Your task to perform on an android device: Go to Amazon Image 0: 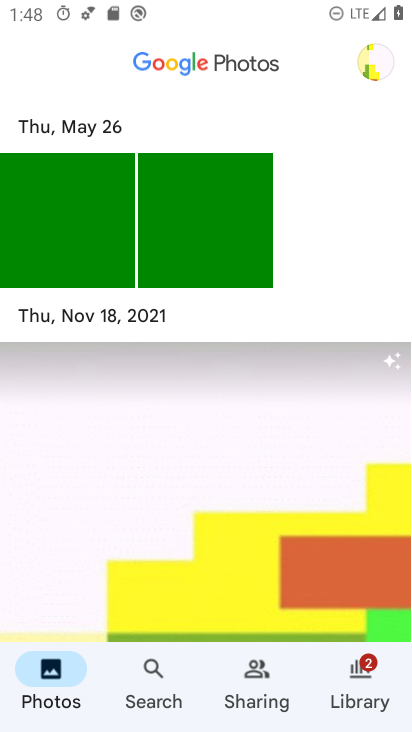
Step 0: press home button
Your task to perform on an android device: Go to Amazon Image 1: 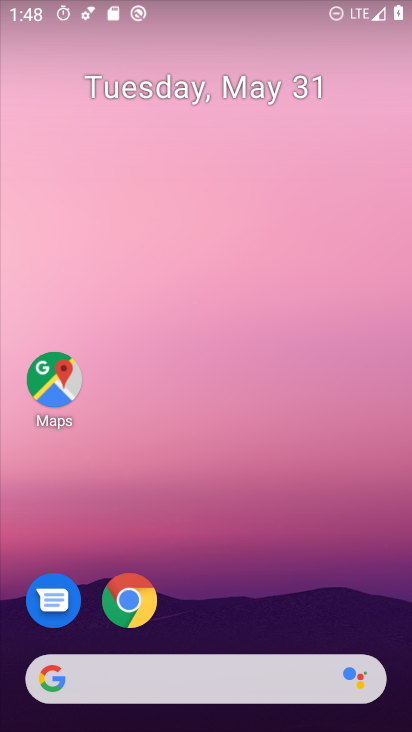
Step 1: click (131, 603)
Your task to perform on an android device: Go to Amazon Image 2: 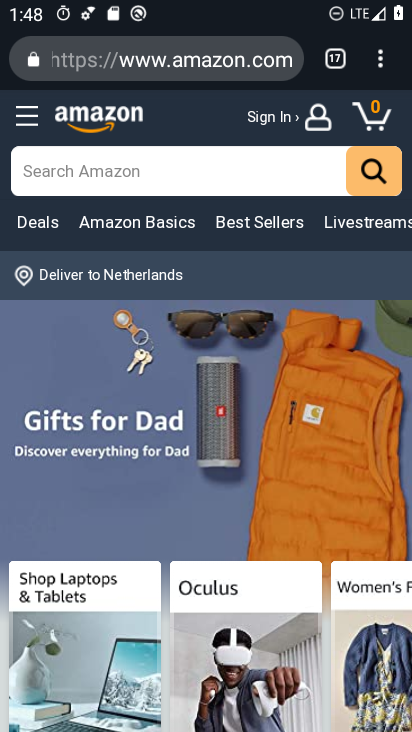
Step 2: task complete